Your task to perform on an android device: add a label to a message in the gmail app Image 0: 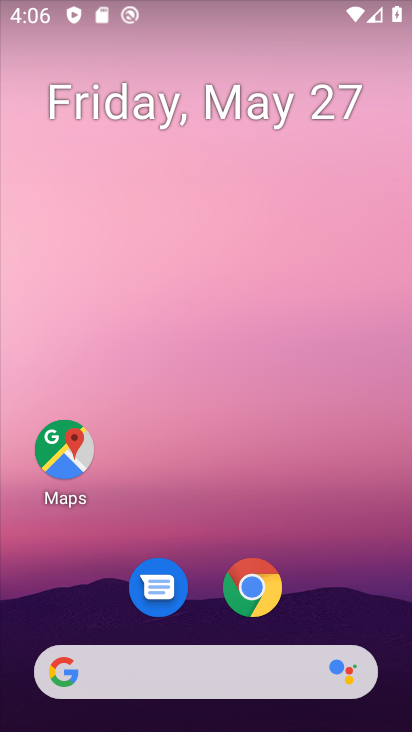
Step 0: drag from (291, 456) to (223, 73)
Your task to perform on an android device: add a label to a message in the gmail app Image 1: 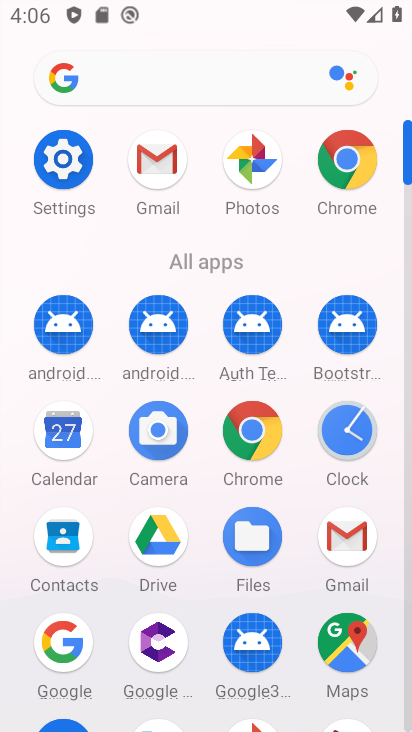
Step 1: drag from (31, 589) to (26, 209)
Your task to perform on an android device: add a label to a message in the gmail app Image 2: 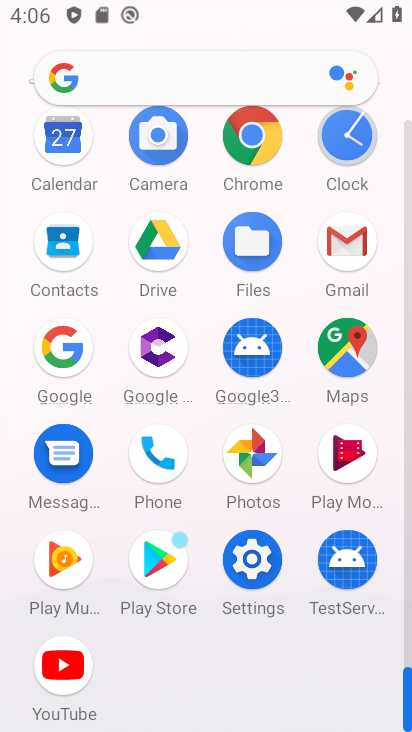
Step 2: drag from (22, 606) to (7, 288)
Your task to perform on an android device: add a label to a message in the gmail app Image 3: 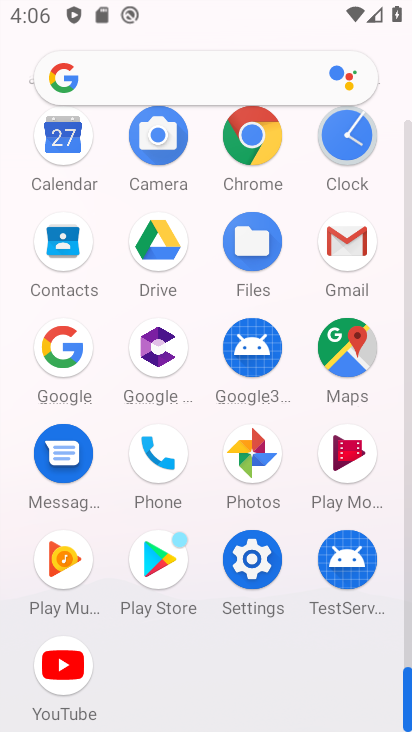
Step 3: click (351, 239)
Your task to perform on an android device: add a label to a message in the gmail app Image 4: 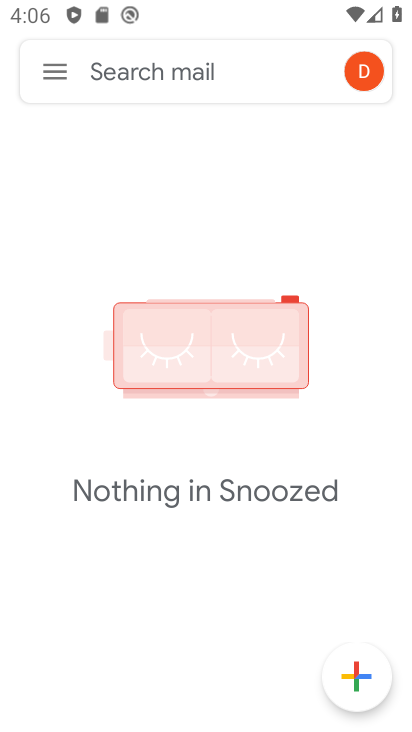
Step 4: click (45, 68)
Your task to perform on an android device: add a label to a message in the gmail app Image 5: 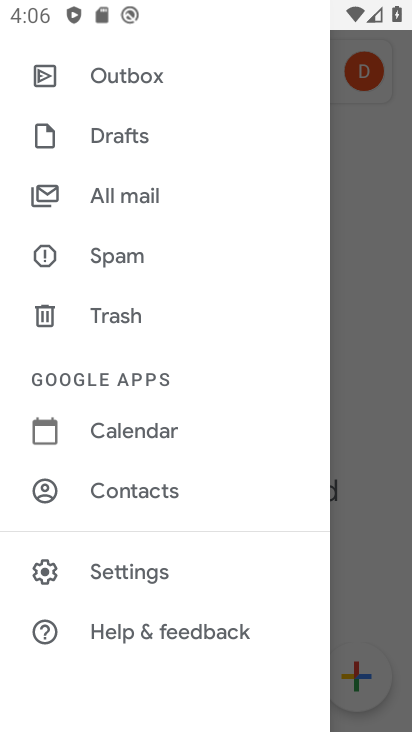
Step 5: click (142, 190)
Your task to perform on an android device: add a label to a message in the gmail app Image 6: 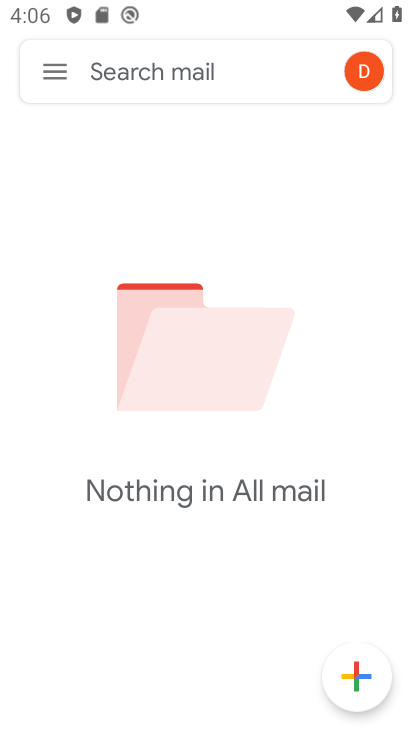
Step 6: click (70, 80)
Your task to perform on an android device: add a label to a message in the gmail app Image 7: 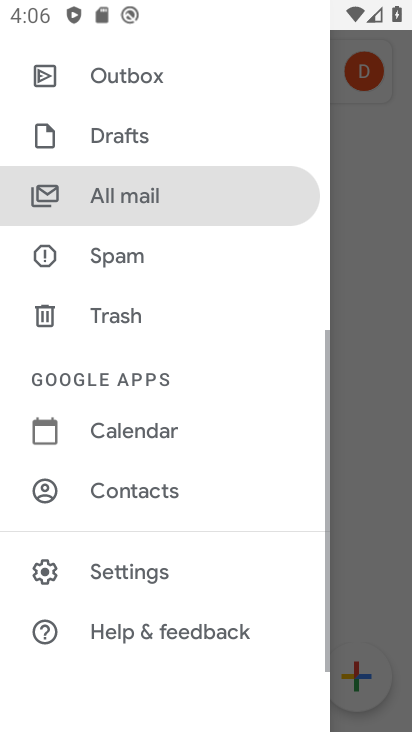
Step 7: drag from (197, 151) to (196, 639)
Your task to perform on an android device: add a label to a message in the gmail app Image 8: 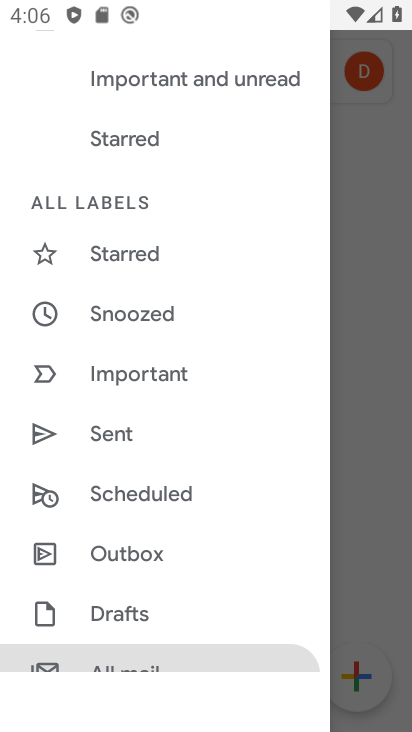
Step 8: click (149, 247)
Your task to perform on an android device: add a label to a message in the gmail app Image 9: 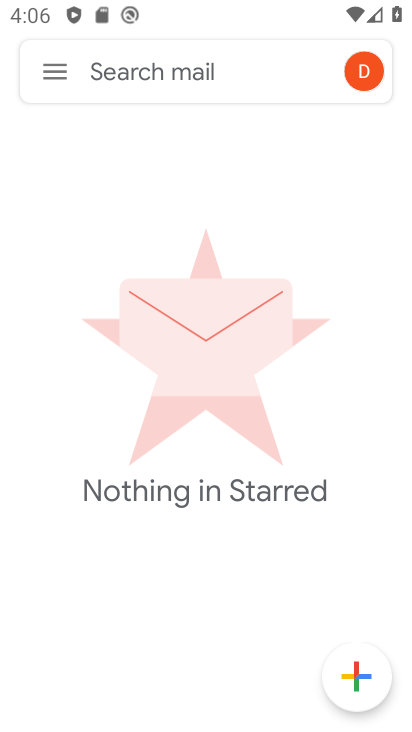
Step 9: click (39, 64)
Your task to perform on an android device: add a label to a message in the gmail app Image 10: 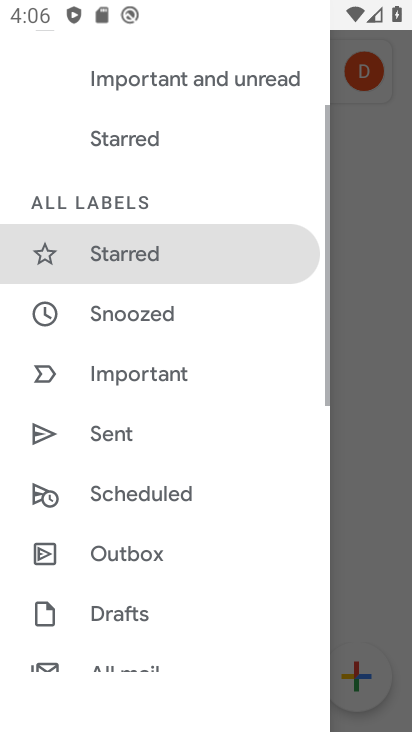
Step 10: drag from (172, 148) to (171, 662)
Your task to perform on an android device: add a label to a message in the gmail app Image 11: 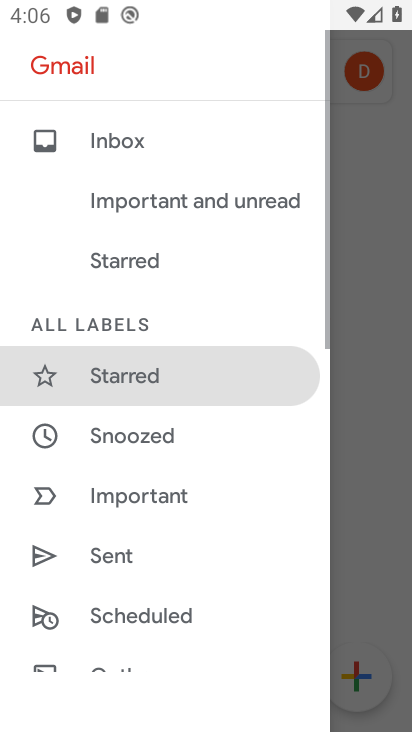
Step 11: click (142, 145)
Your task to perform on an android device: add a label to a message in the gmail app Image 12: 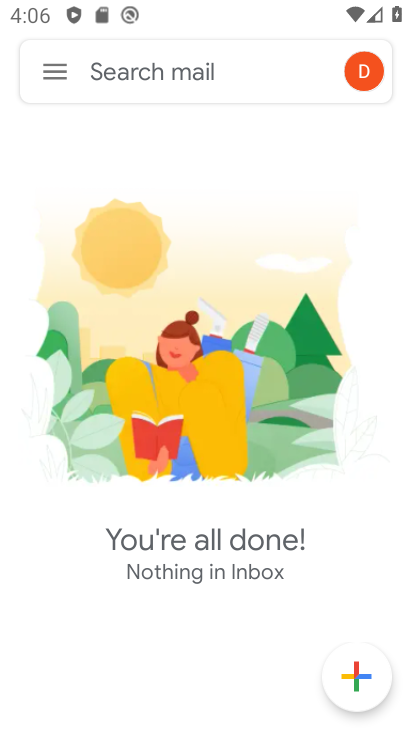
Step 12: click (53, 53)
Your task to perform on an android device: add a label to a message in the gmail app Image 13: 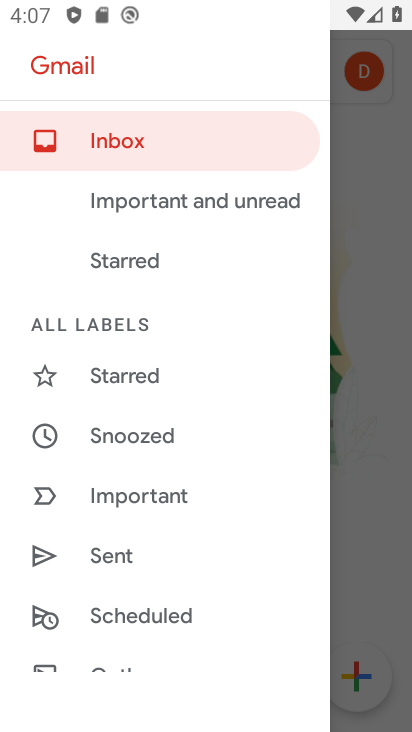
Step 13: drag from (209, 544) to (186, 248)
Your task to perform on an android device: add a label to a message in the gmail app Image 14: 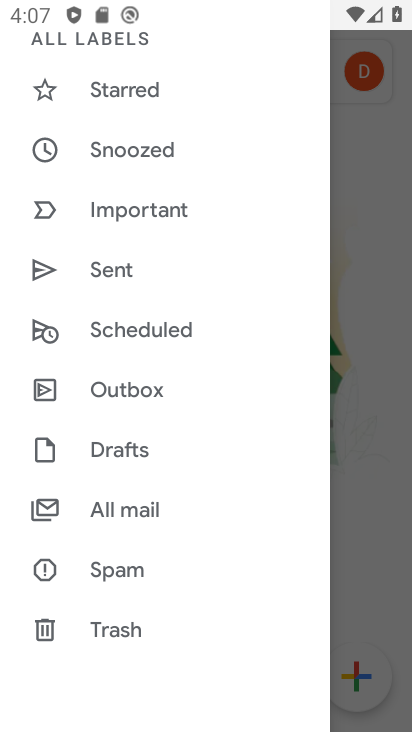
Step 14: click (148, 200)
Your task to perform on an android device: add a label to a message in the gmail app Image 15: 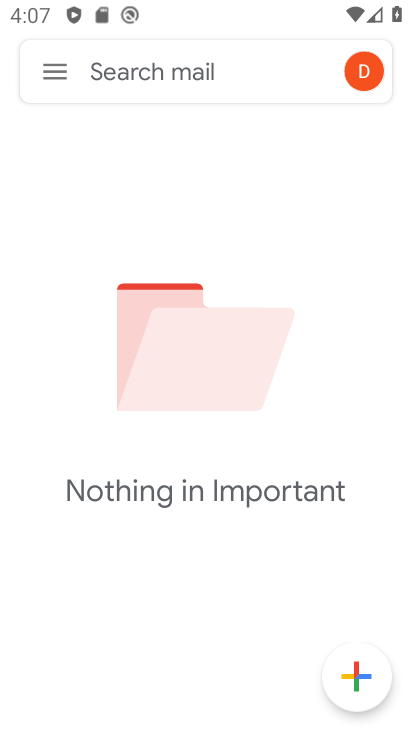
Step 15: click (51, 62)
Your task to perform on an android device: add a label to a message in the gmail app Image 16: 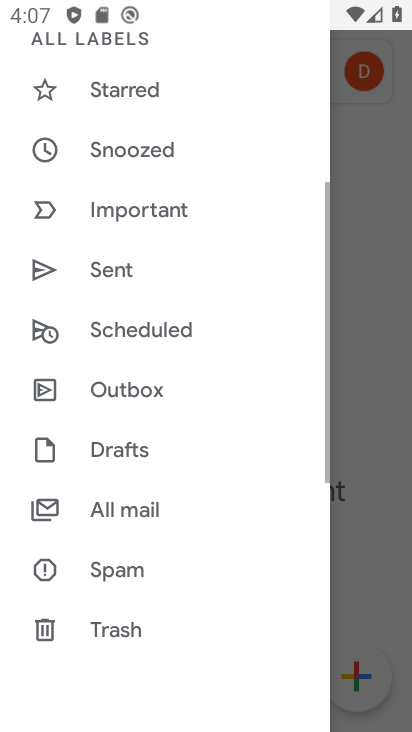
Step 16: click (125, 149)
Your task to perform on an android device: add a label to a message in the gmail app Image 17: 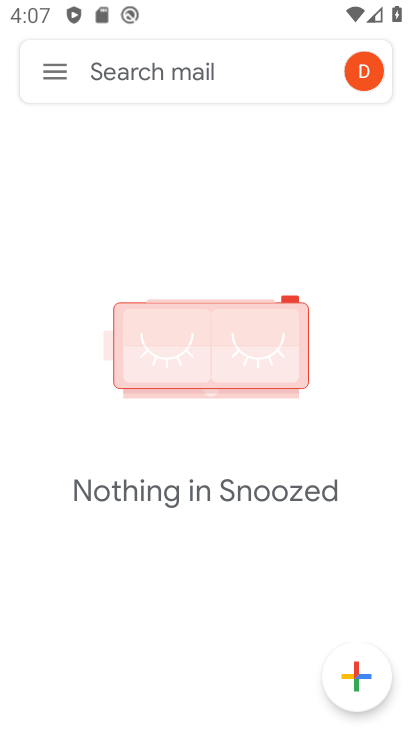
Step 17: click (70, 66)
Your task to perform on an android device: add a label to a message in the gmail app Image 18: 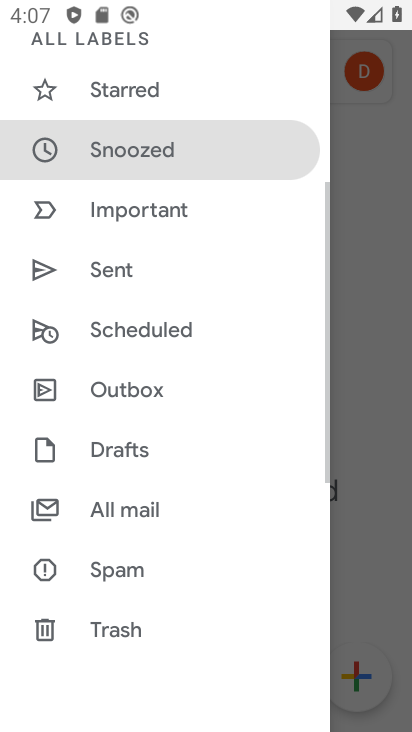
Step 18: drag from (155, 557) to (151, 134)
Your task to perform on an android device: add a label to a message in the gmail app Image 19: 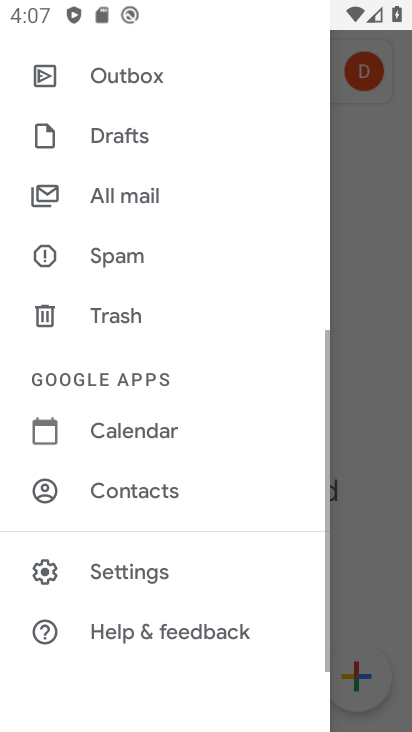
Step 19: click (134, 197)
Your task to perform on an android device: add a label to a message in the gmail app Image 20: 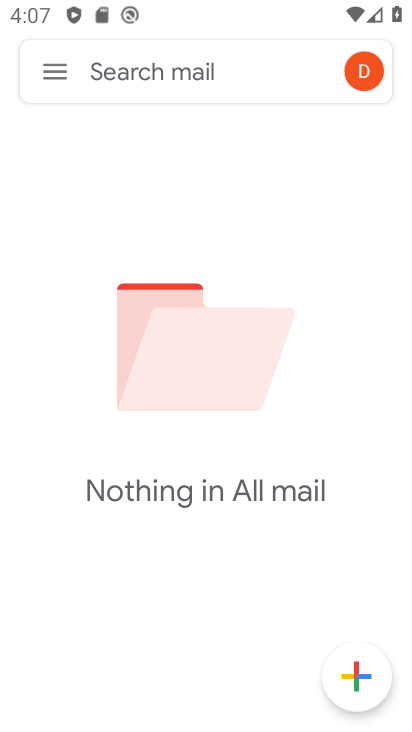
Step 20: task complete